Your task to perform on an android device: What is the speed of light? Image 0: 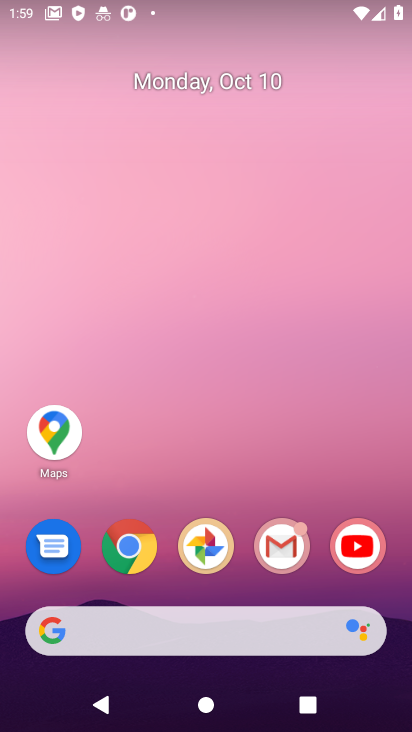
Step 0: click (117, 560)
Your task to perform on an android device: What is the speed of light? Image 1: 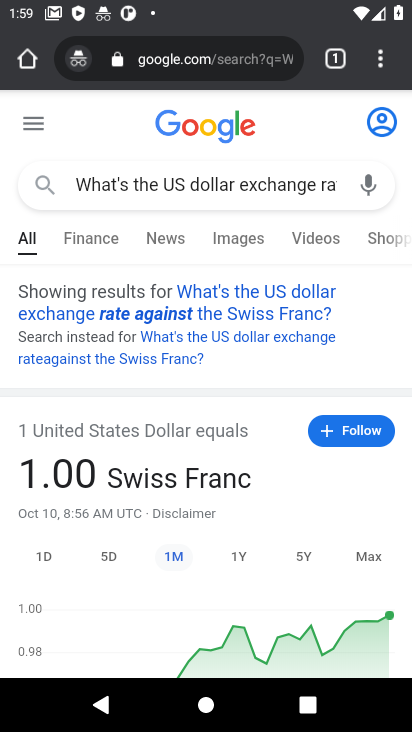
Step 1: click (186, 68)
Your task to perform on an android device: What is the speed of light? Image 2: 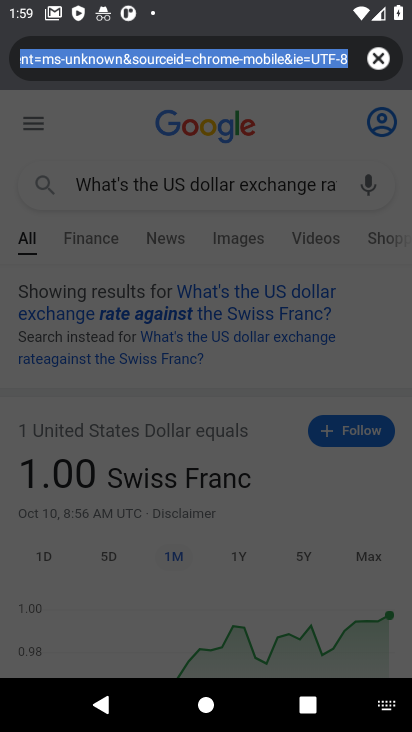
Step 2: click (374, 67)
Your task to perform on an android device: What is the speed of light? Image 3: 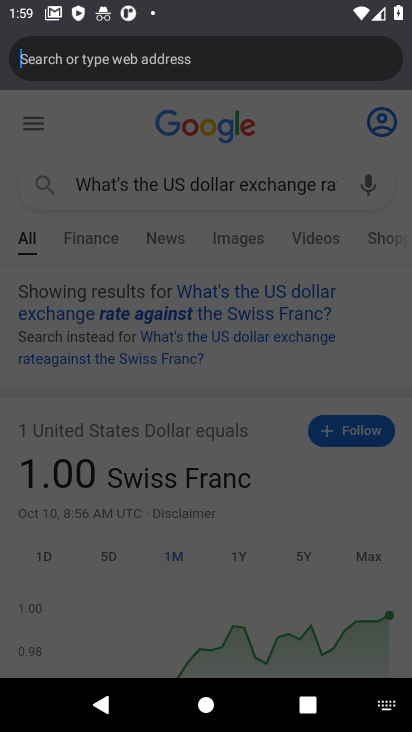
Step 3: type "What is the speed of light?"
Your task to perform on an android device: What is the speed of light? Image 4: 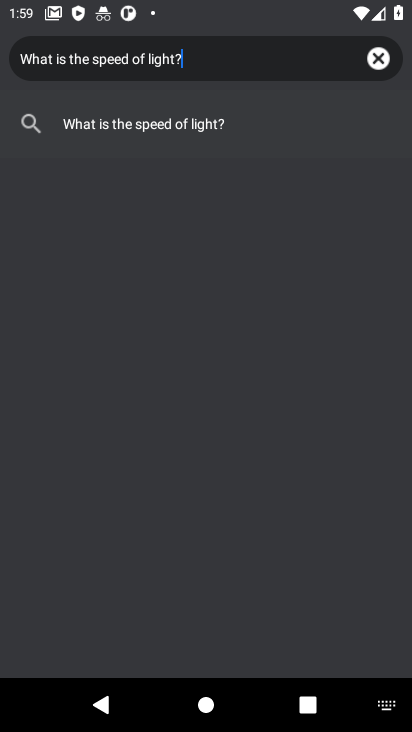
Step 4: click (143, 128)
Your task to perform on an android device: What is the speed of light? Image 5: 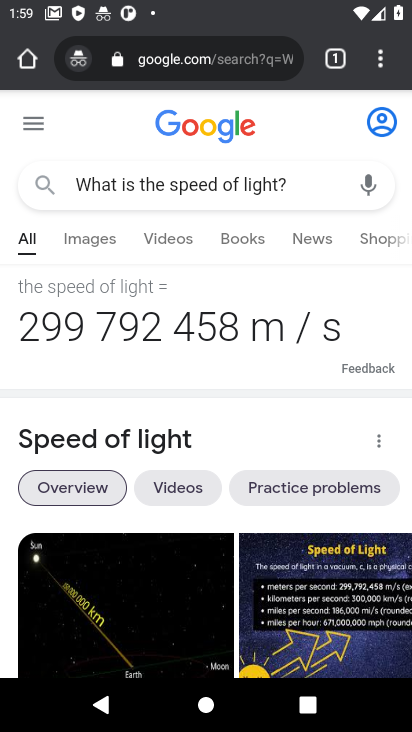
Step 5: task complete